Your task to perform on an android device: set the stopwatch Image 0: 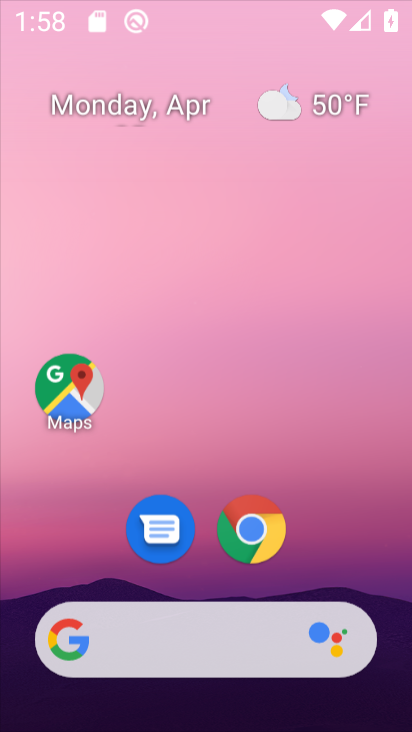
Step 0: click (347, 81)
Your task to perform on an android device: set the stopwatch Image 1: 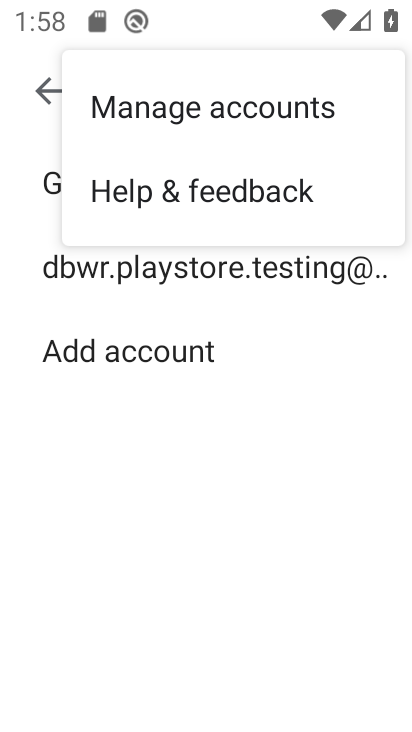
Step 1: press home button
Your task to perform on an android device: set the stopwatch Image 2: 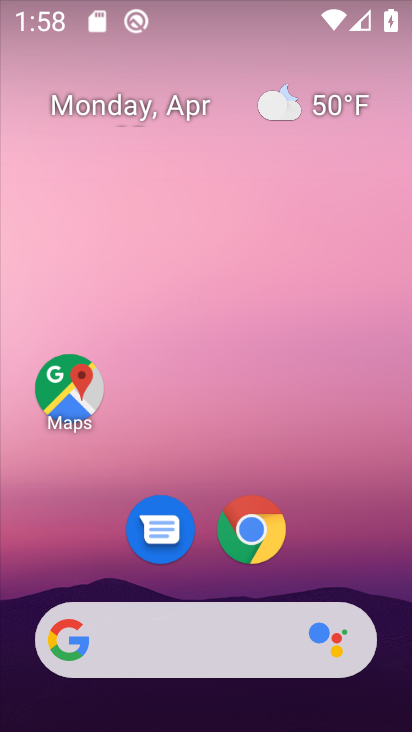
Step 2: click (336, 114)
Your task to perform on an android device: set the stopwatch Image 3: 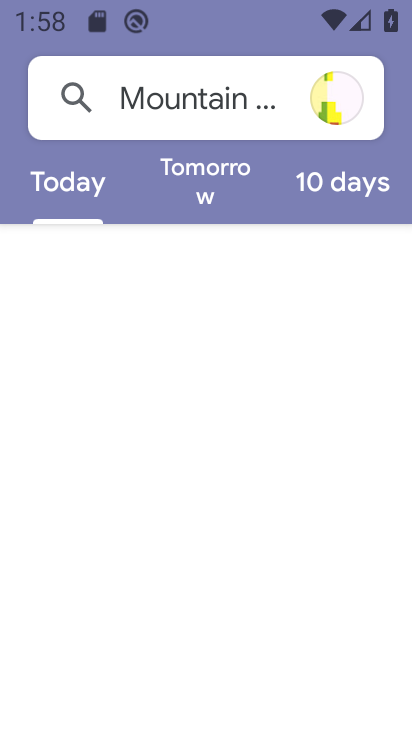
Step 3: press home button
Your task to perform on an android device: set the stopwatch Image 4: 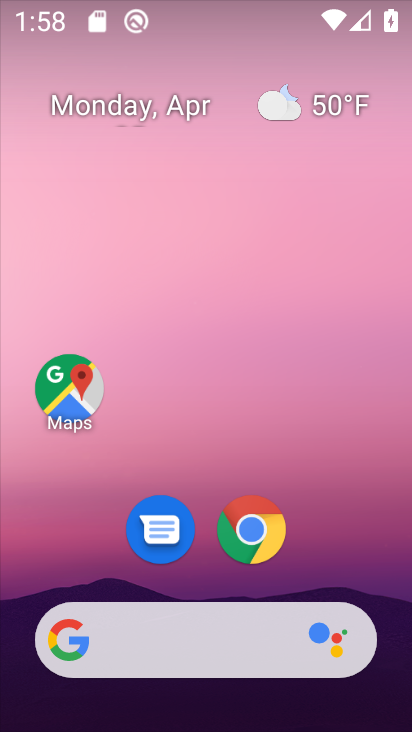
Step 4: drag from (398, 487) to (378, 95)
Your task to perform on an android device: set the stopwatch Image 5: 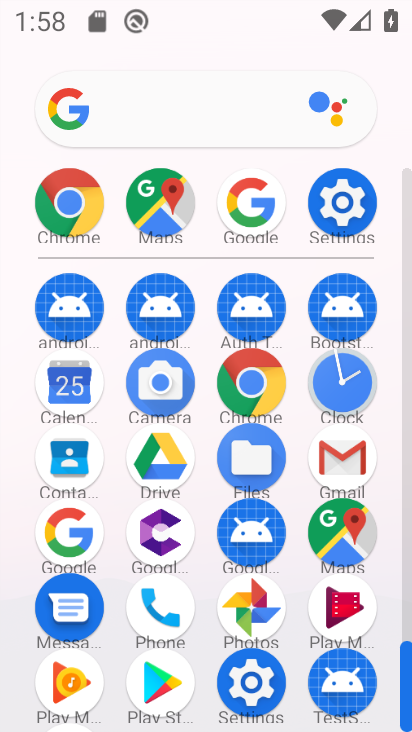
Step 5: click (333, 371)
Your task to perform on an android device: set the stopwatch Image 6: 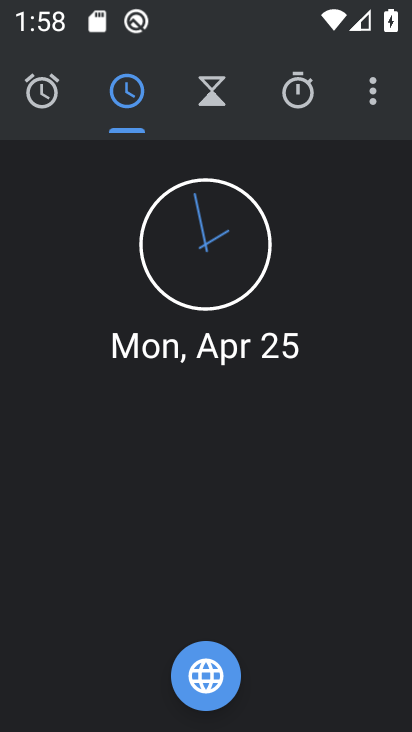
Step 6: click (292, 101)
Your task to perform on an android device: set the stopwatch Image 7: 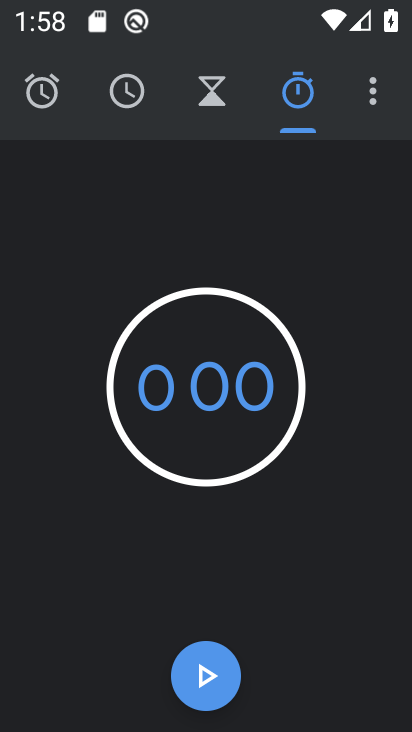
Step 7: click (214, 679)
Your task to perform on an android device: set the stopwatch Image 8: 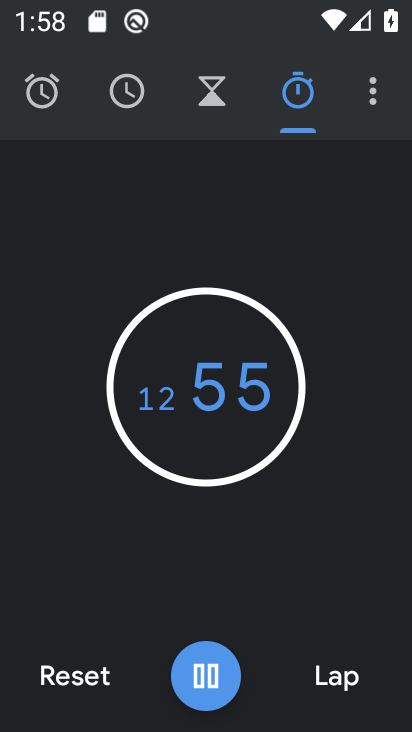
Step 8: task complete